Your task to perform on an android device: set the timer Image 0: 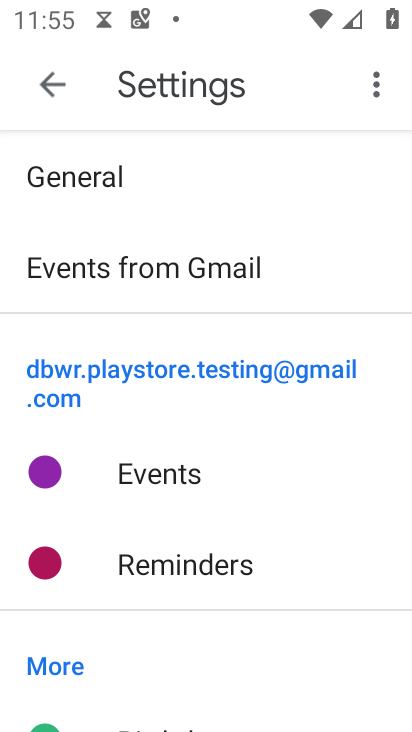
Step 0: press home button
Your task to perform on an android device: set the timer Image 1: 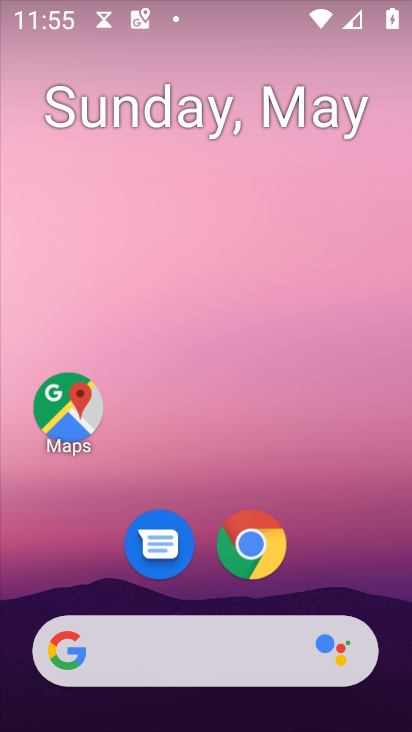
Step 1: drag from (357, 552) to (355, 220)
Your task to perform on an android device: set the timer Image 2: 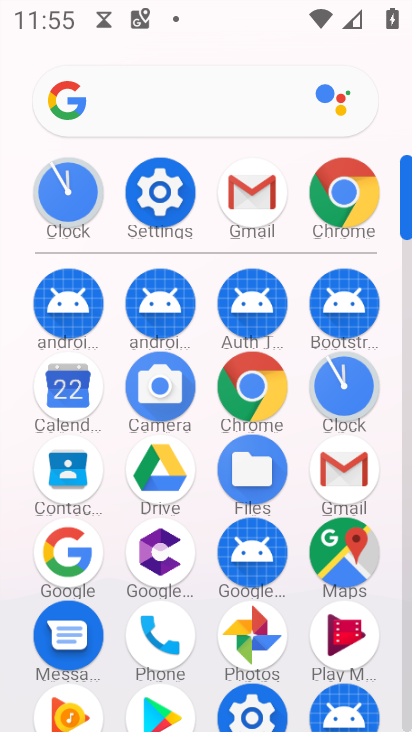
Step 2: click (339, 387)
Your task to perform on an android device: set the timer Image 3: 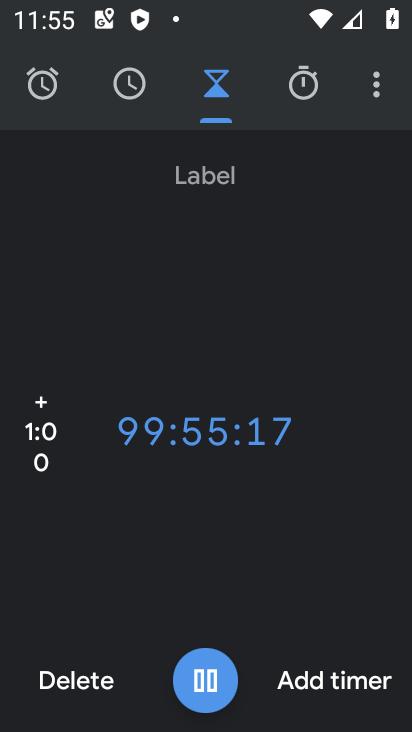
Step 3: task complete